Your task to perform on an android device: open sync settings in chrome Image 0: 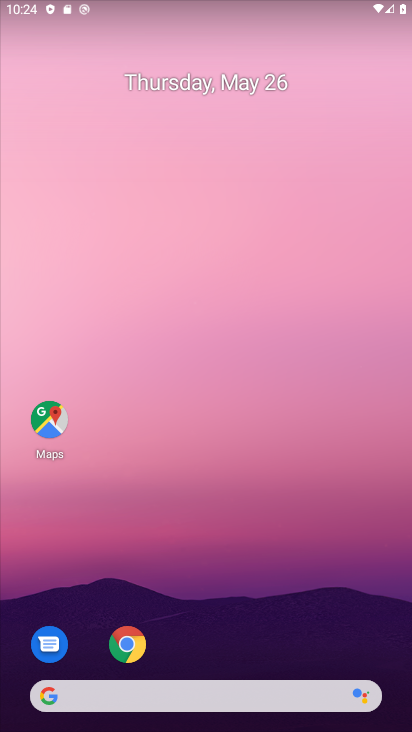
Step 0: click (128, 630)
Your task to perform on an android device: open sync settings in chrome Image 1: 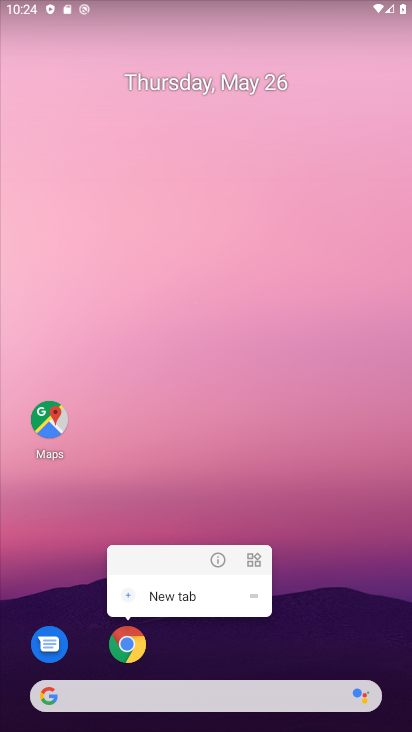
Step 1: click (126, 662)
Your task to perform on an android device: open sync settings in chrome Image 2: 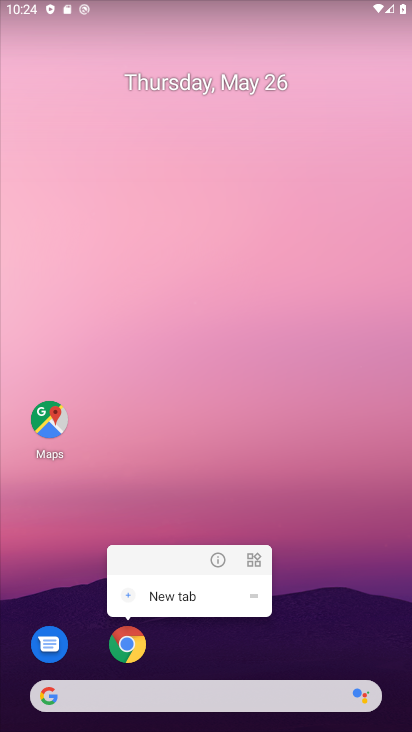
Step 2: click (141, 651)
Your task to perform on an android device: open sync settings in chrome Image 3: 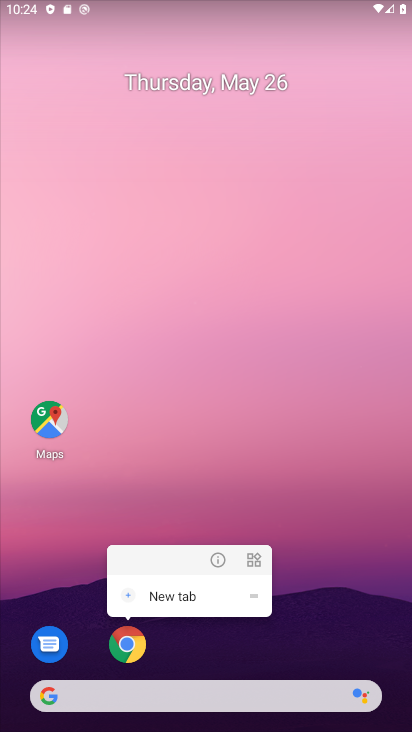
Step 3: click (134, 646)
Your task to perform on an android device: open sync settings in chrome Image 4: 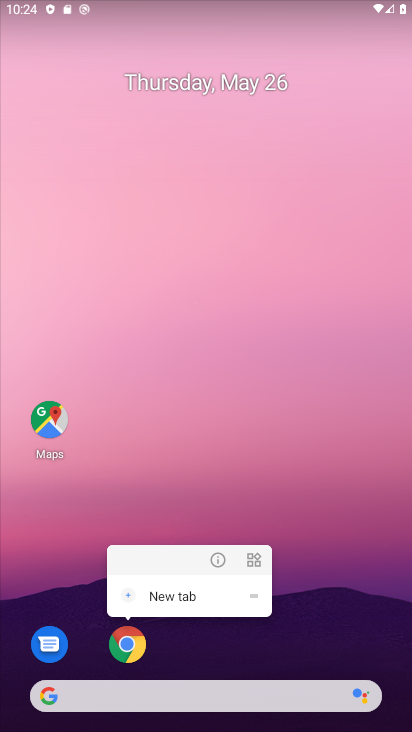
Step 4: click (120, 652)
Your task to perform on an android device: open sync settings in chrome Image 5: 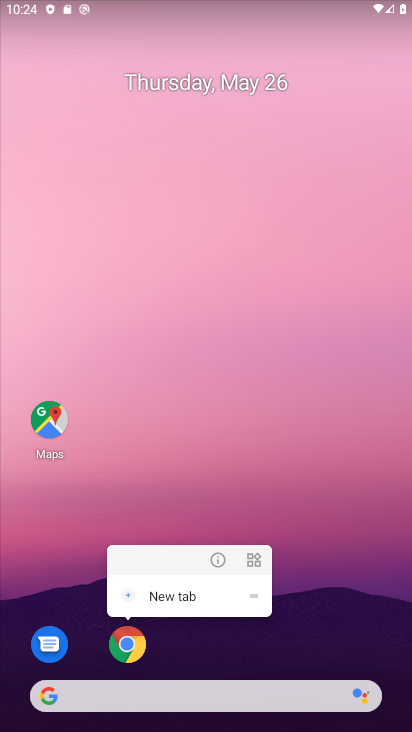
Step 5: click (120, 652)
Your task to perform on an android device: open sync settings in chrome Image 6: 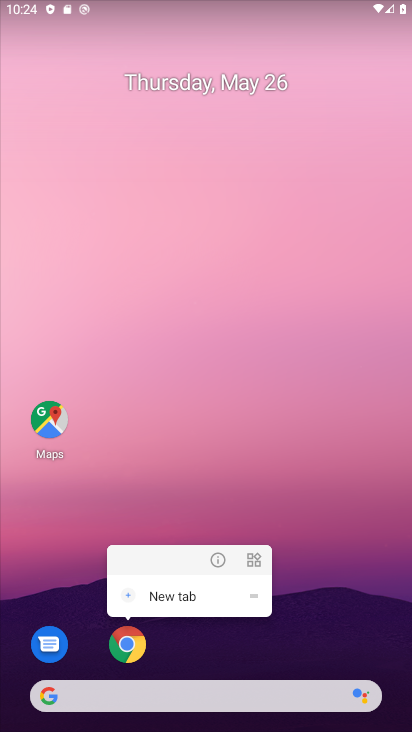
Step 6: click (131, 646)
Your task to perform on an android device: open sync settings in chrome Image 7: 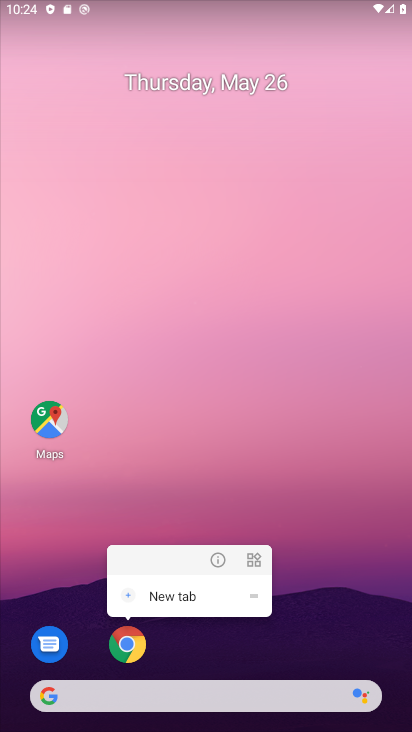
Step 7: click (131, 646)
Your task to perform on an android device: open sync settings in chrome Image 8: 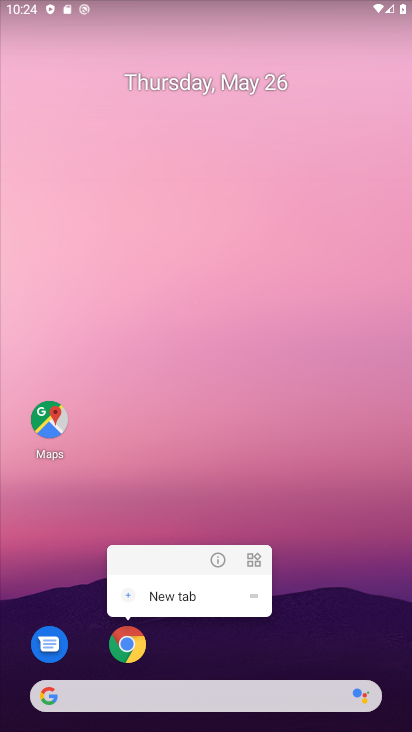
Step 8: click (129, 657)
Your task to perform on an android device: open sync settings in chrome Image 9: 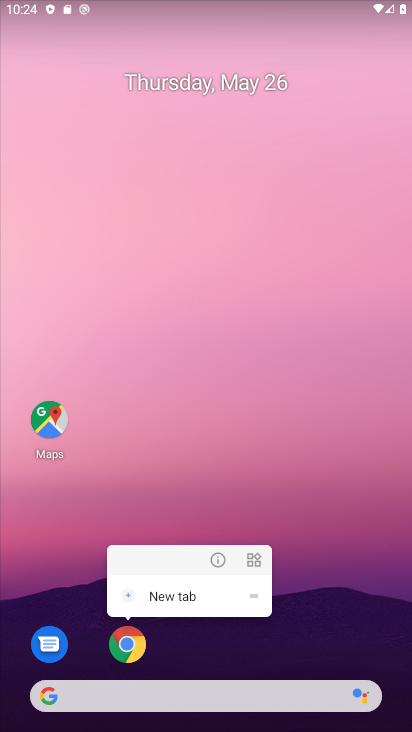
Step 9: click (129, 657)
Your task to perform on an android device: open sync settings in chrome Image 10: 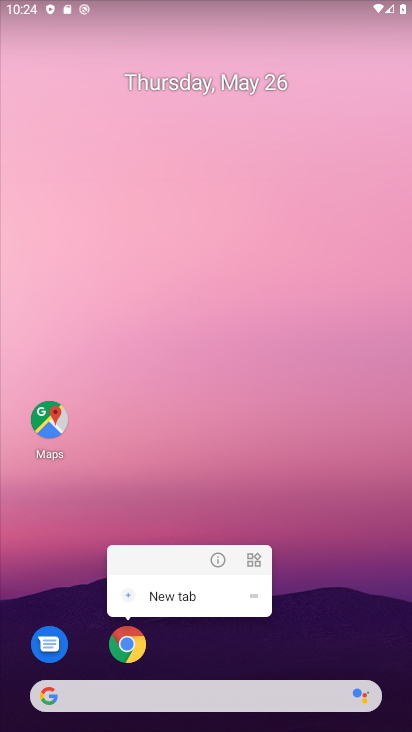
Step 10: click (146, 645)
Your task to perform on an android device: open sync settings in chrome Image 11: 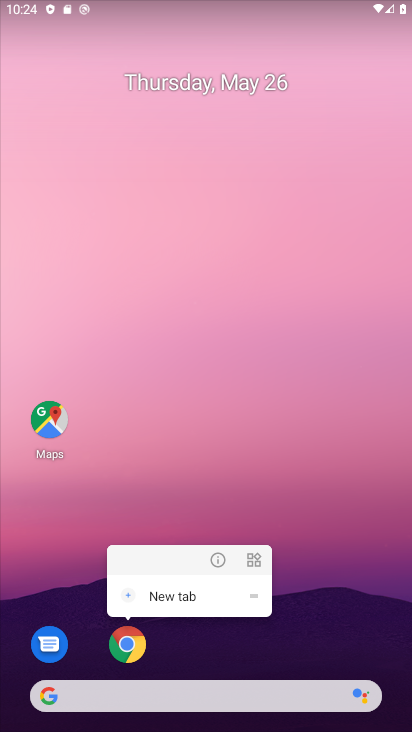
Step 11: click (138, 638)
Your task to perform on an android device: open sync settings in chrome Image 12: 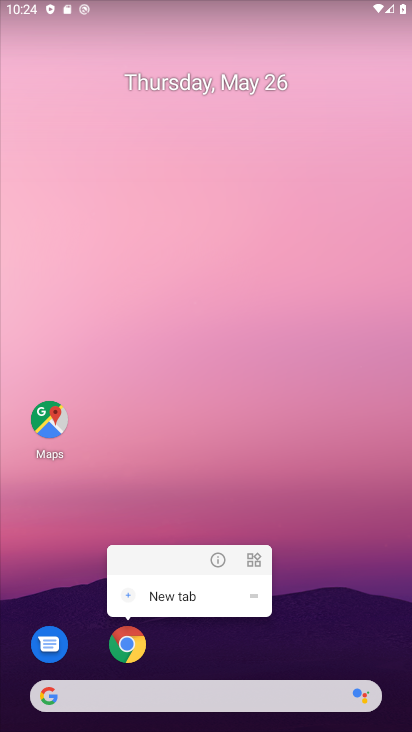
Step 12: click (121, 646)
Your task to perform on an android device: open sync settings in chrome Image 13: 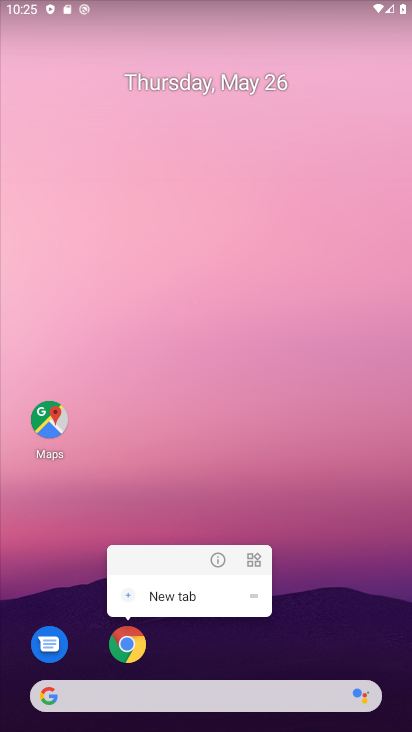
Step 13: click (122, 648)
Your task to perform on an android device: open sync settings in chrome Image 14: 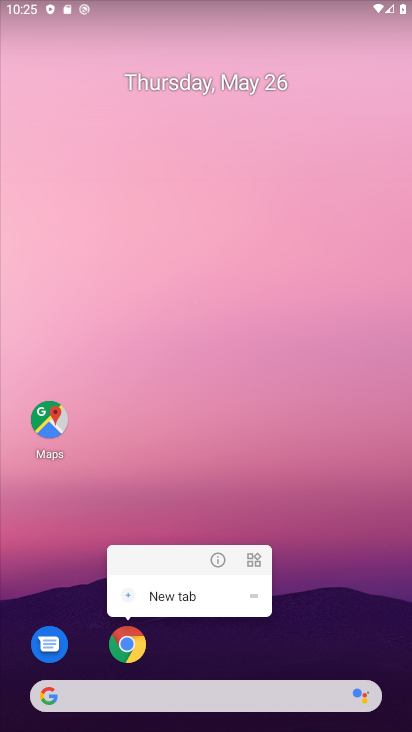
Step 14: click (130, 646)
Your task to perform on an android device: open sync settings in chrome Image 15: 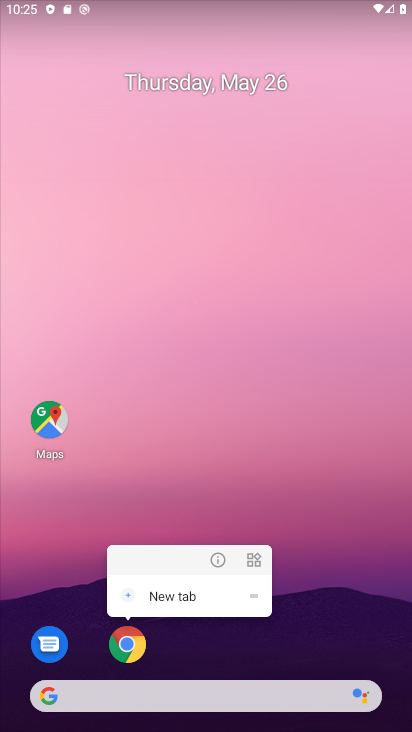
Step 15: click (130, 646)
Your task to perform on an android device: open sync settings in chrome Image 16: 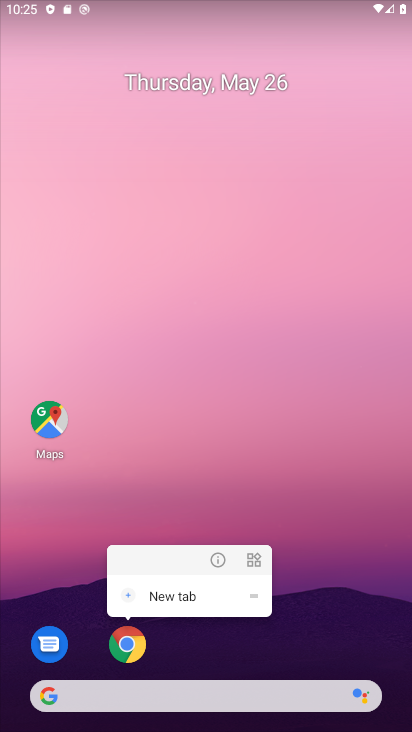
Step 16: click (135, 670)
Your task to perform on an android device: open sync settings in chrome Image 17: 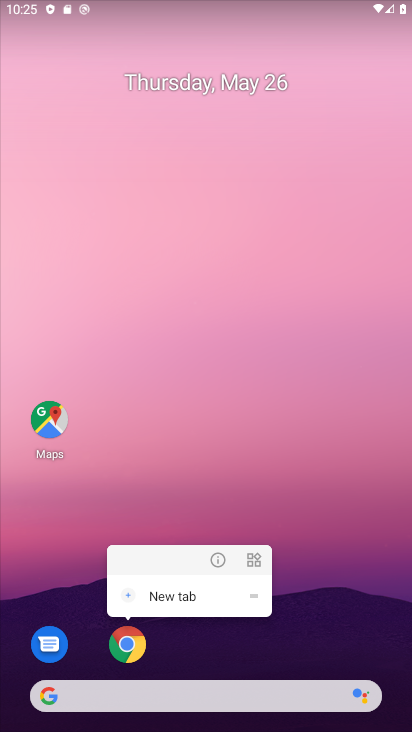
Step 17: click (126, 642)
Your task to perform on an android device: open sync settings in chrome Image 18: 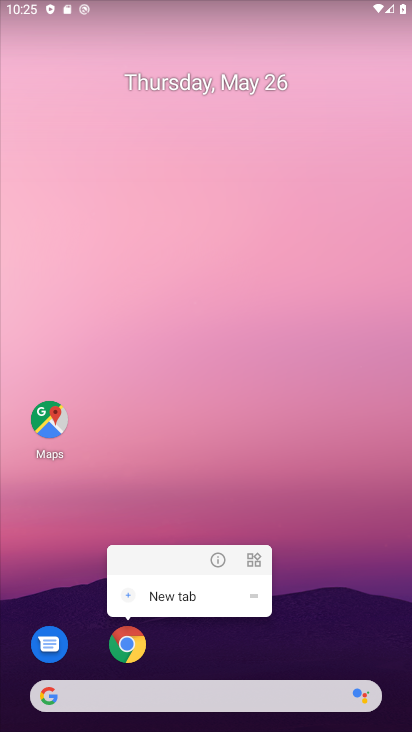
Step 18: click (136, 630)
Your task to perform on an android device: open sync settings in chrome Image 19: 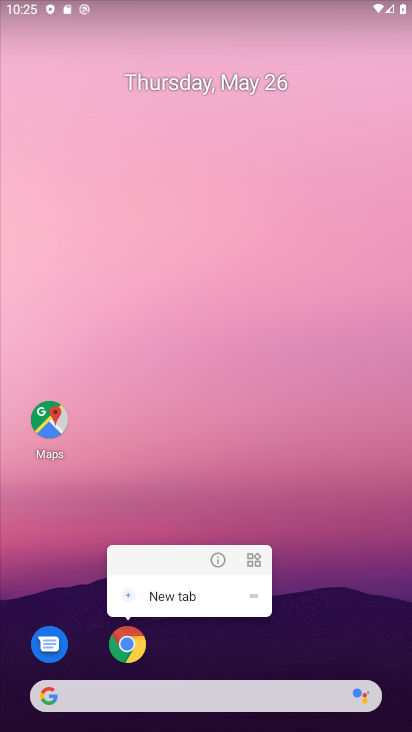
Step 19: click (132, 637)
Your task to perform on an android device: open sync settings in chrome Image 20: 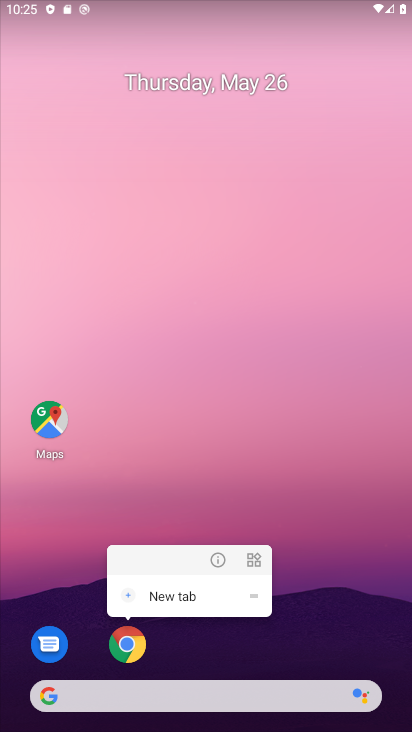
Step 20: click (138, 660)
Your task to perform on an android device: open sync settings in chrome Image 21: 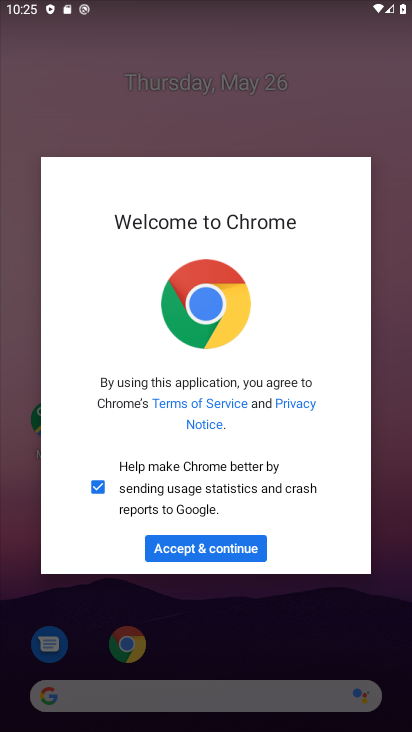
Step 21: click (211, 540)
Your task to perform on an android device: open sync settings in chrome Image 22: 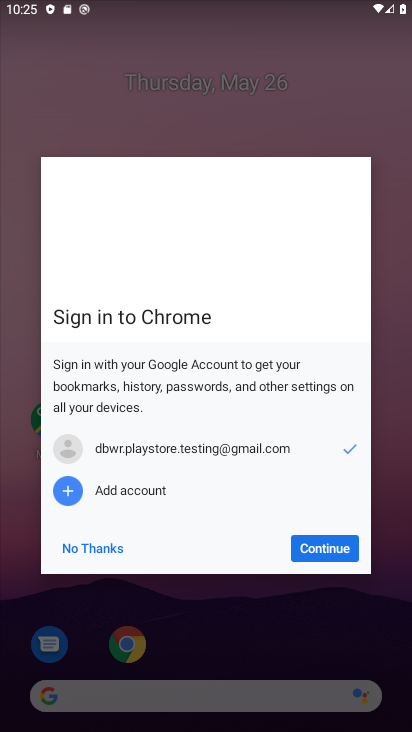
Step 22: click (347, 556)
Your task to perform on an android device: open sync settings in chrome Image 23: 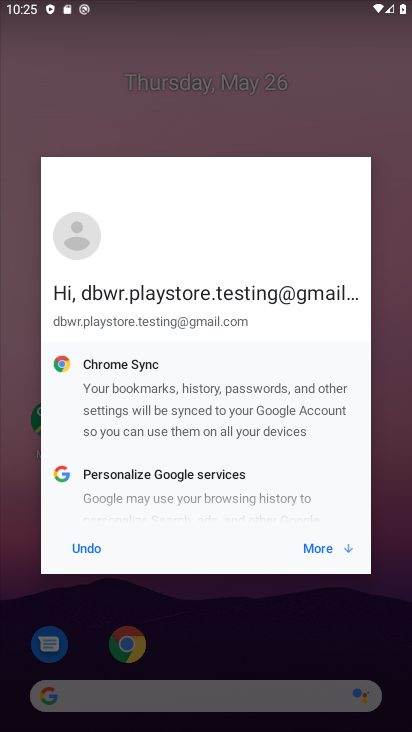
Step 23: click (337, 551)
Your task to perform on an android device: open sync settings in chrome Image 24: 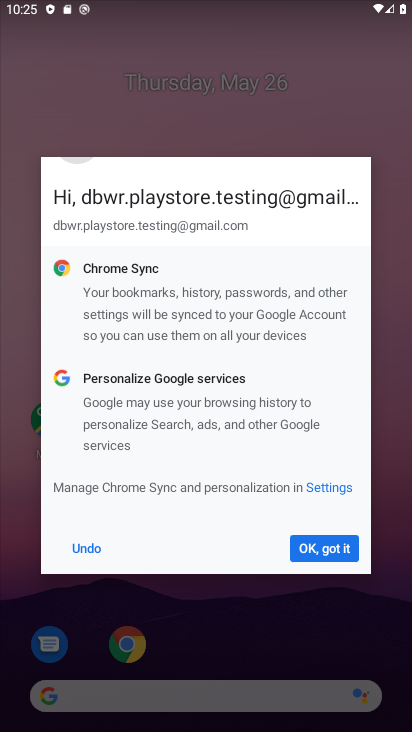
Step 24: click (337, 551)
Your task to perform on an android device: open sync settings in chrome Image 25: 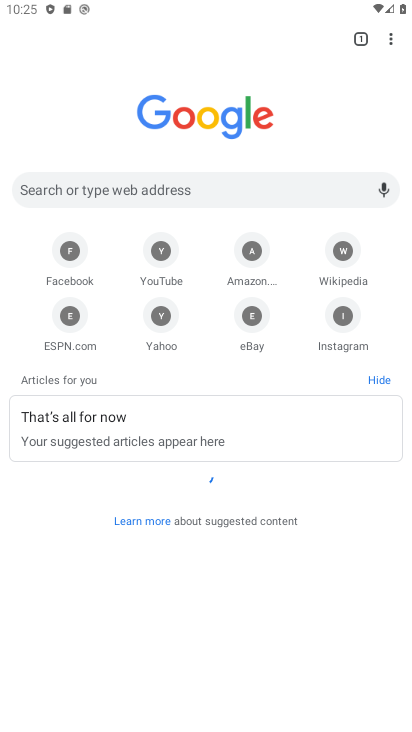
Step 25: drag from (394, 36) to (320, 320)
Your task to perform on an android device: open sync settings in chrome Image 26: 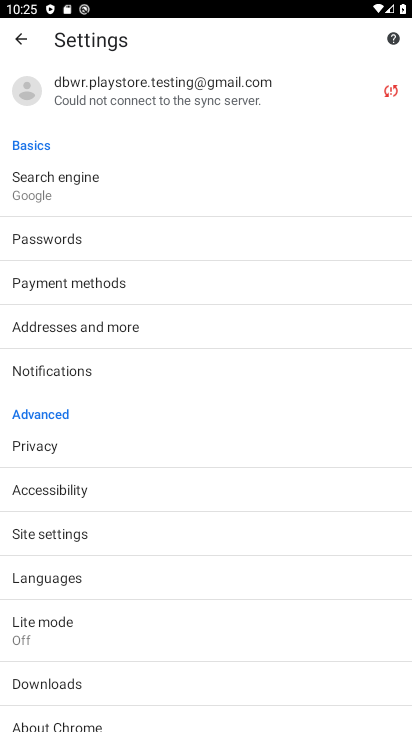
Step 26: click (205, 91)
Your task to perform on an android device: open sync settings in chrome Image 27: 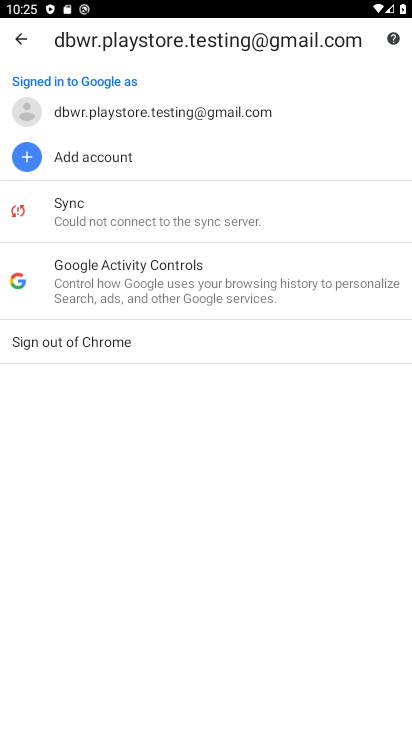
Step 27: click (151, 230)
Your task to perform on an android device: open sync settings in chrome Image 28: 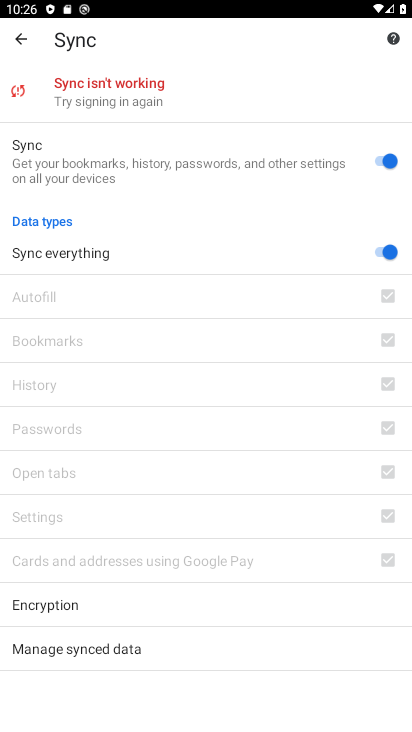
Step 28: task complete